Your task to perform on an android device: When is my next meeting? Image 0: 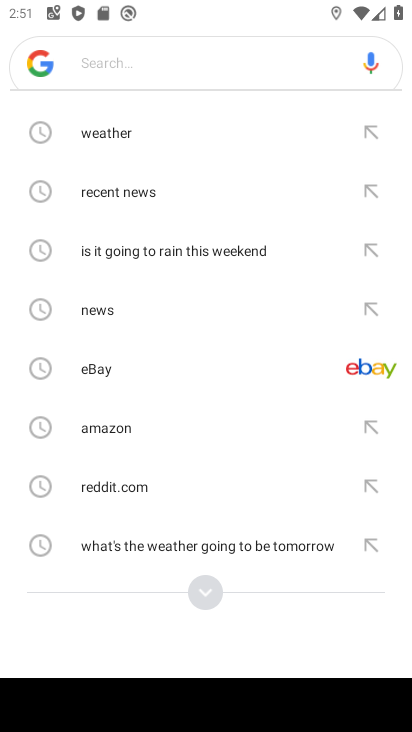
Step 0: press home button
Your task to perform on an android device: When is my next meeting? Image 1: 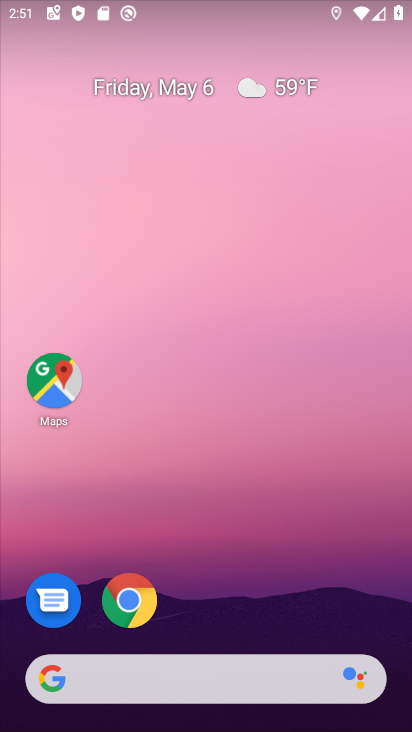
Step 1: drag from (260, 564) to (340, 43)
Your task to perform on an android device: When is my next meeting? Image 2: 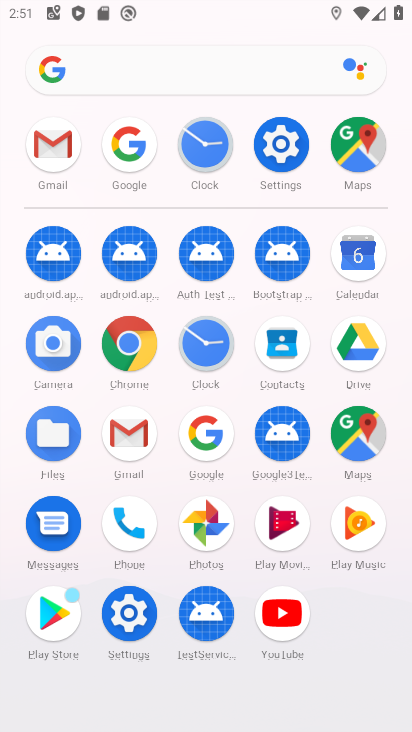
Step 2: click (361, 259)
Your task to perform on an android device: When is my next meeting? Image 3: 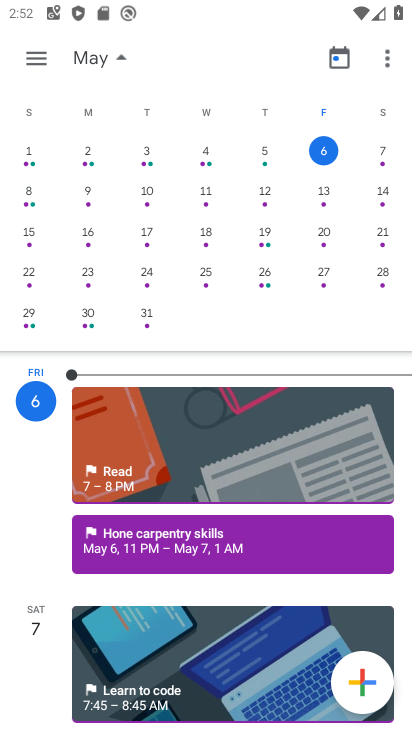
Step 3: click (24, 196)
Your task to perform on an android device: When is my next meeting? Image 4: 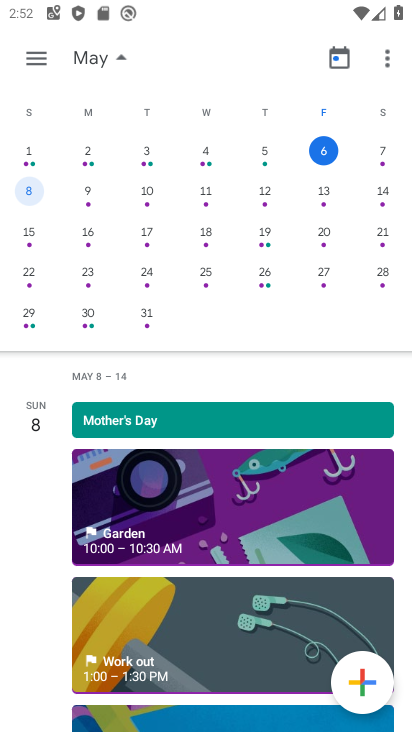
Step 4: task complete